Your task to perform on an android device: turn off location Image 0: 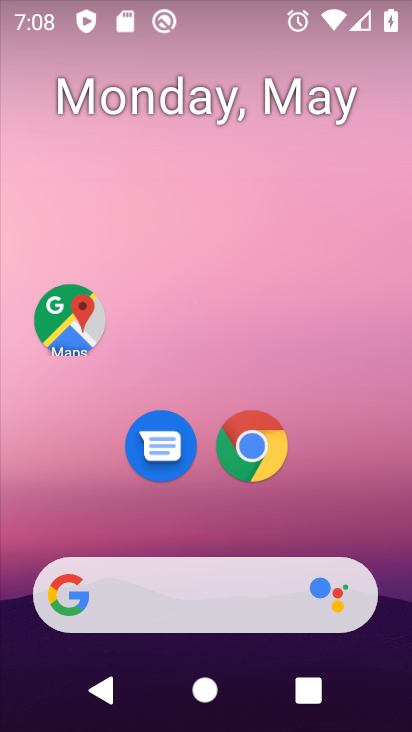
Step 0: drag from (307, 520) to (202, 65)
Your task to perform on an android device: turn off location Image 1: 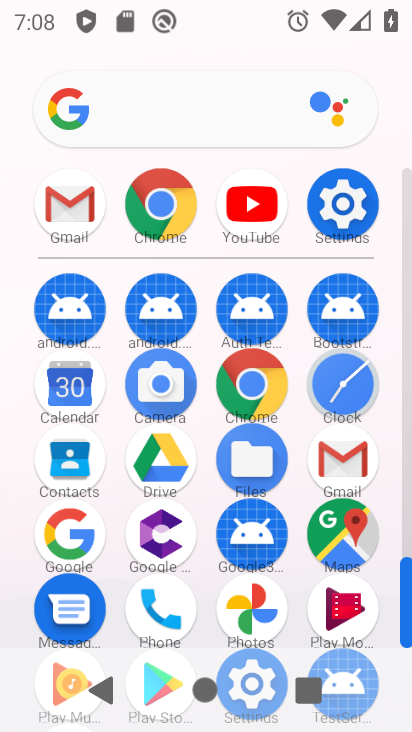
Step 1: click (352, 178)
Your task to perform on an android device: turn off location Image 2: 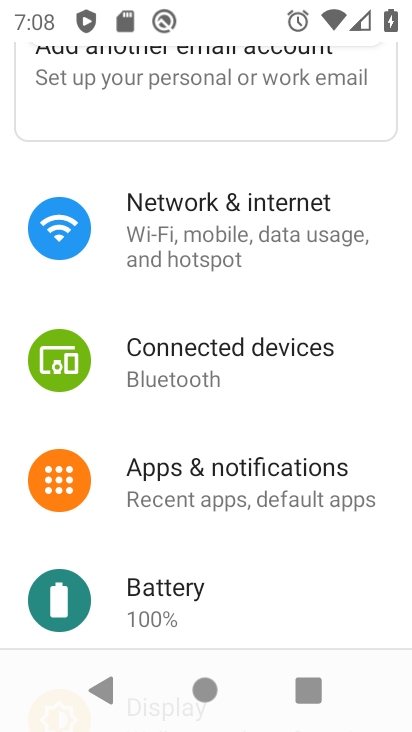
Step 2: drag from (234, 552) to (180, 299)
Your task to perform on an android device: turn off location Image 3: 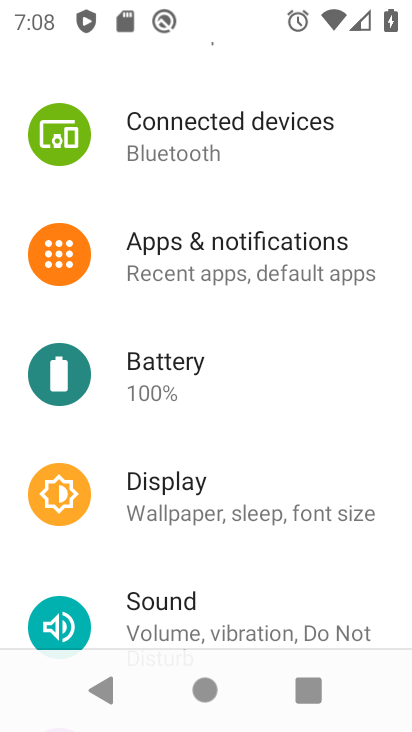
Step 3: drag from (251, 535) to (183, 274)
Your task to perform on an android device: turn off location Image 4: 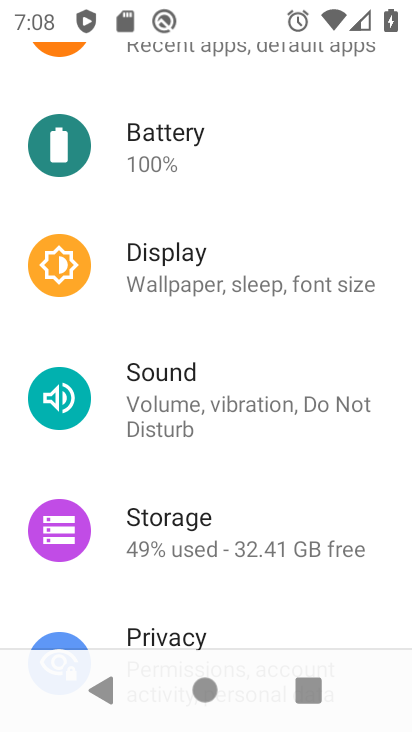
Step 4: drag from (232, 486) to (144, 77)
Your task to perform on an android device: turn off location Image 5: 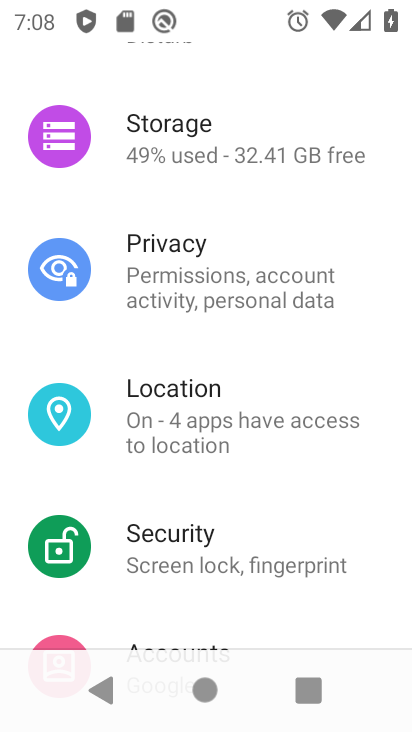
Step 5: click (184, 395)
Your task to perform on an android device: turn off location Image 6: 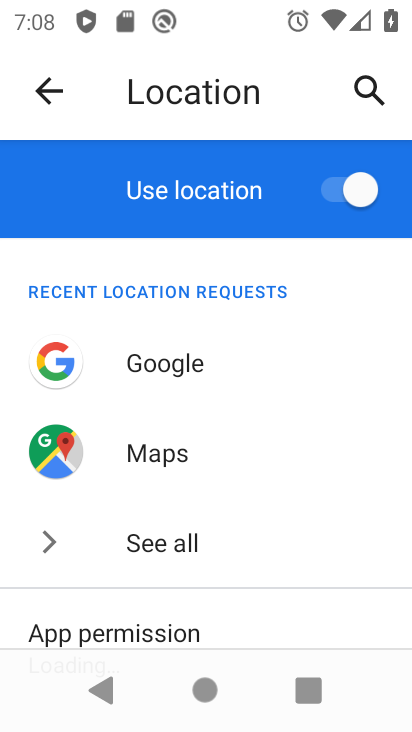
Step 6: click (348, 198)
Your task to perform on an android device: turn off location Image 7: 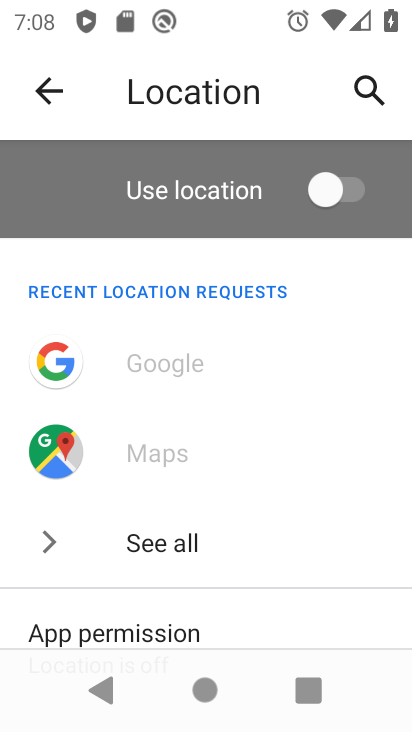
Step 7: task complete